Your task to perform on an android device: create a new album in the google photos Image 0: 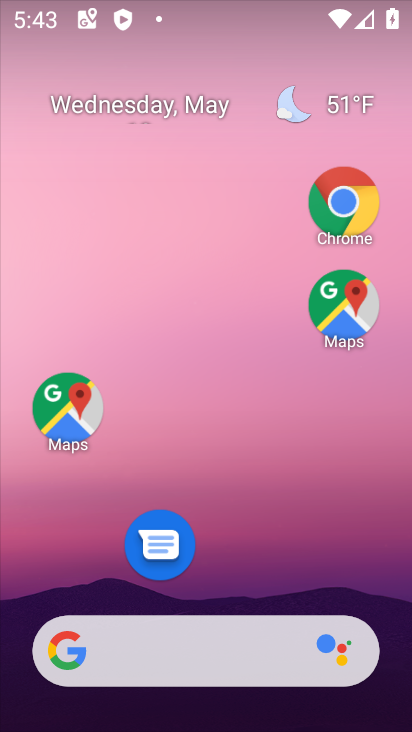
Step 0: drag from (248, 531) to (295, 10)
Your task to perform on an android device: create a new album in the google photos Image 1: 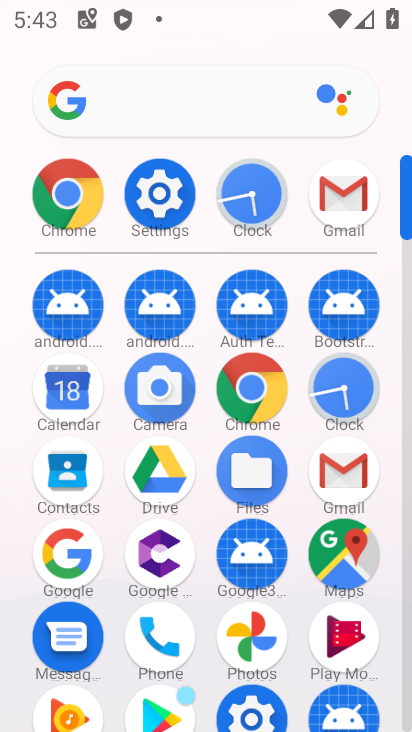
Step 1: click (255, 617)
Your task to perform on an android device: create a new album in the google photos Image 2: 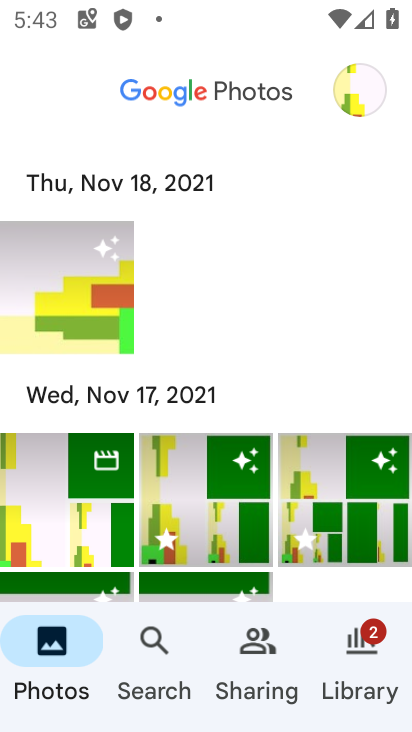
Step 2: click (380, 653)
Your task to perform on an android device: create a new album in the google photos Image 3: 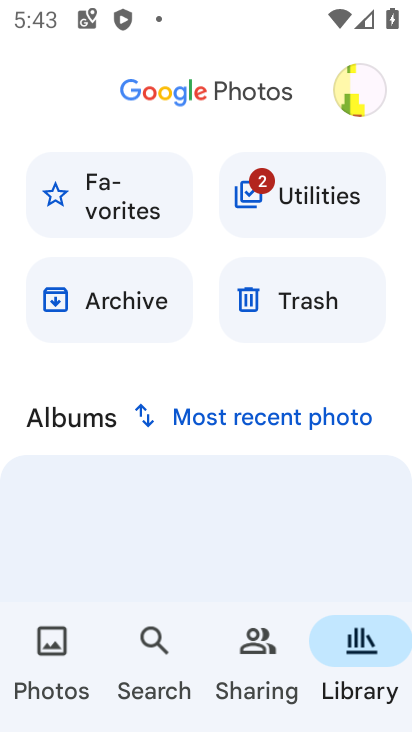
Step 3: drag from (138, 447) to (107, 207)
Your task to perform on an android device: create a new album in the google photos Image 4: 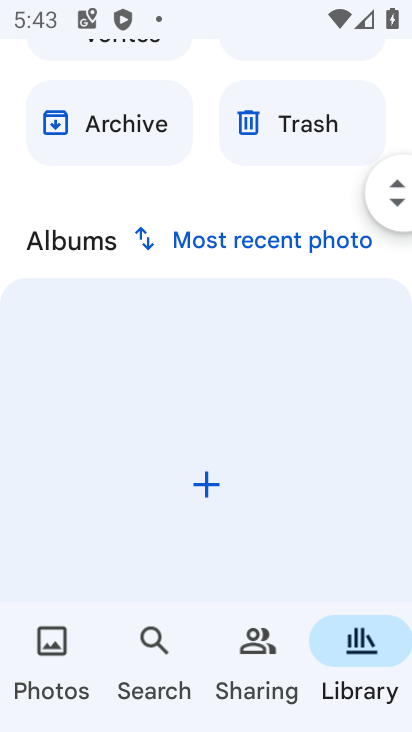
Step 4: click (200, 434)
Your task to perform on an android device: create a new album in the google photos Image 5: 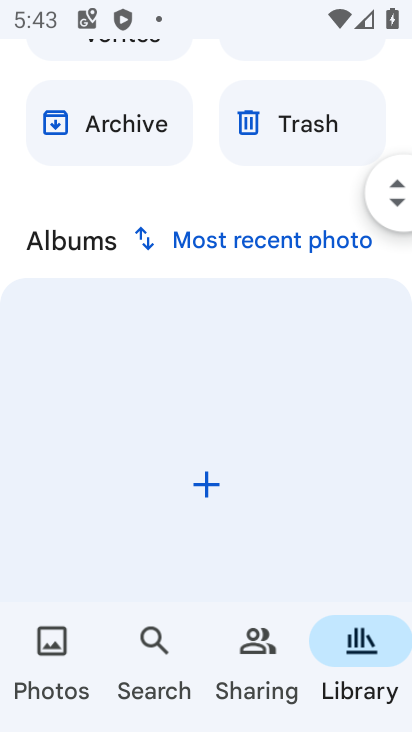
Step 5: click (201, 484)
Your task to perform on an android device: create a new album in the google photos Image 6: 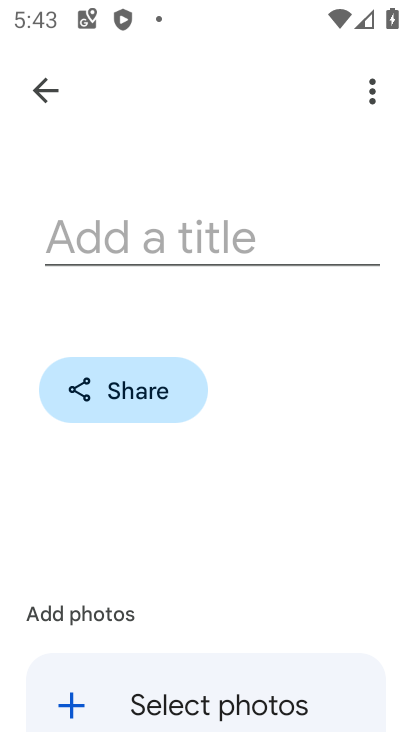
Step 6: click (166, 240)
Your task to perform on an android device: create a new album in the google photos Image 7: 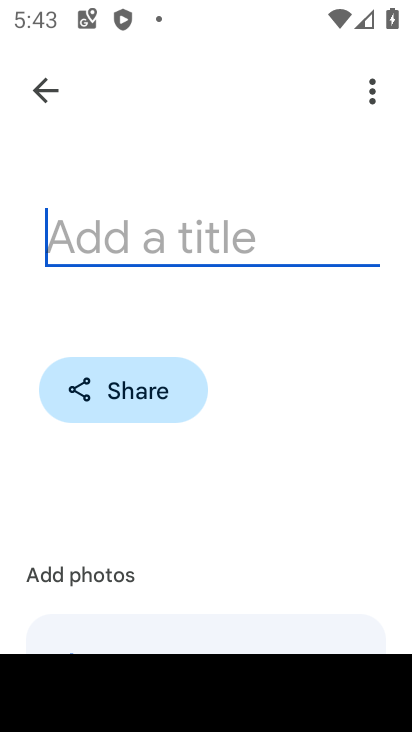
Step 7: type "varuni"
Your task to perform on an android device: create a new album in the google photos Image 8: 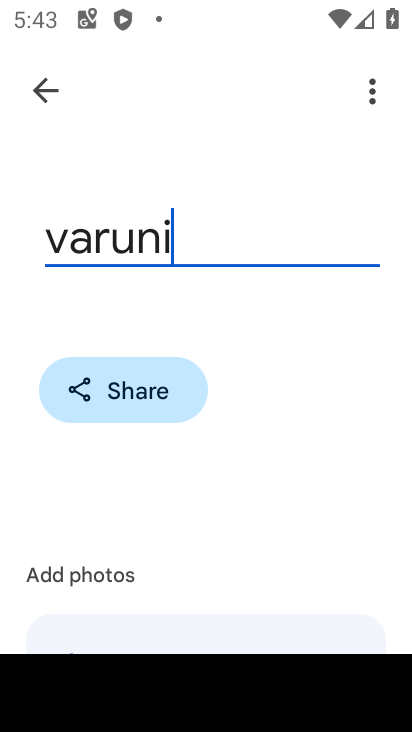
Step 8: drag from (168, 551) to (121, 197)
Your task to perform on an android device: create a new album in the google photos Image 9: 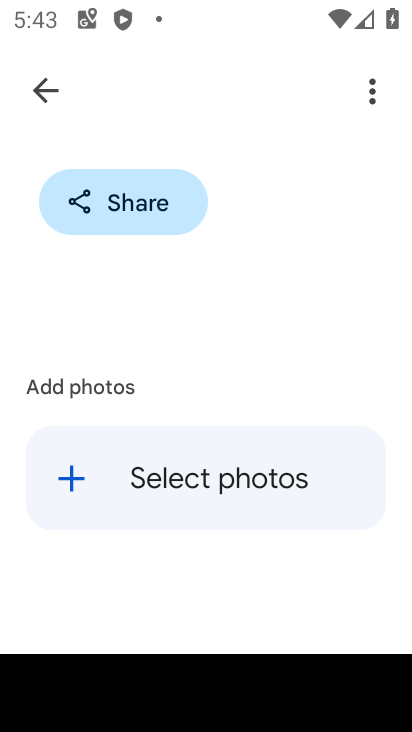
Step 9: click (176, 485)
Your task to perform on an android device: create a new album in the google photos Image 10: 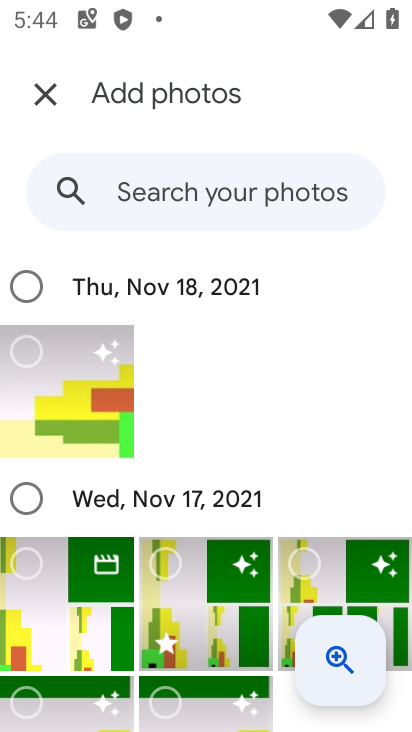
Step 10: click (20, 287)
Your task to perform on an android device: create a new album in the google photos Image 11: 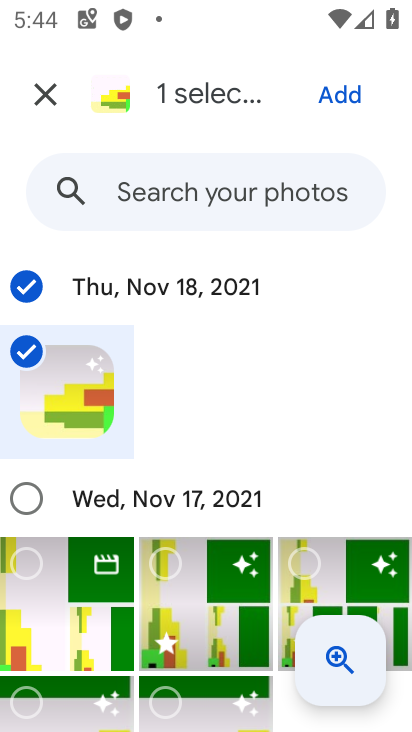
Step 11: click (324, 115)
Your task to perform on an android device: create a new album in the google photos Image 12: 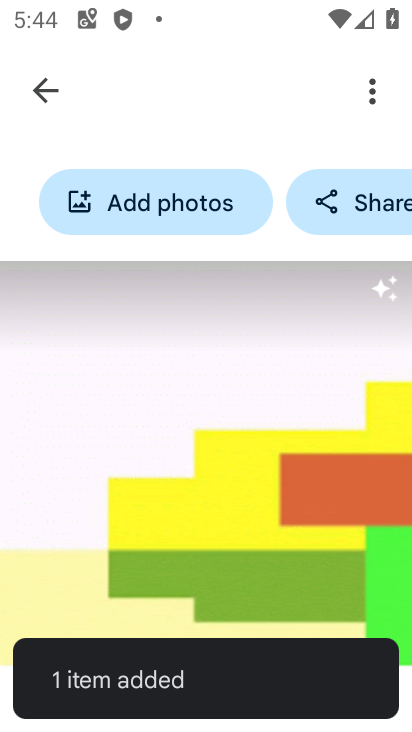
Step 12: task complete